Your task to perform on an android device: Go to CNN.com Image 0: 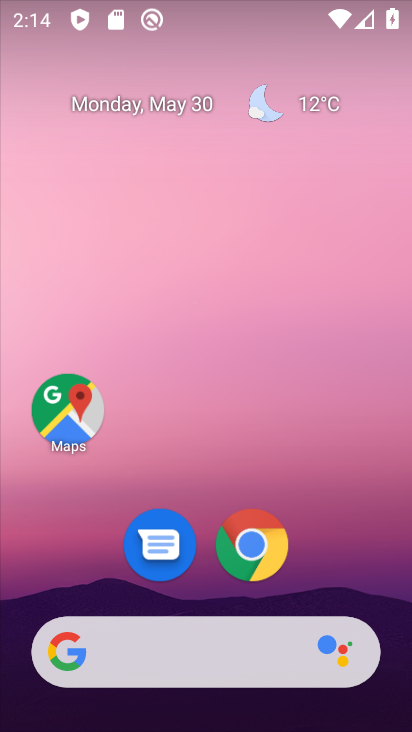
Step 0: click (254, 647)
Your task to perform on an android device: Go to CNN.com Image 1: 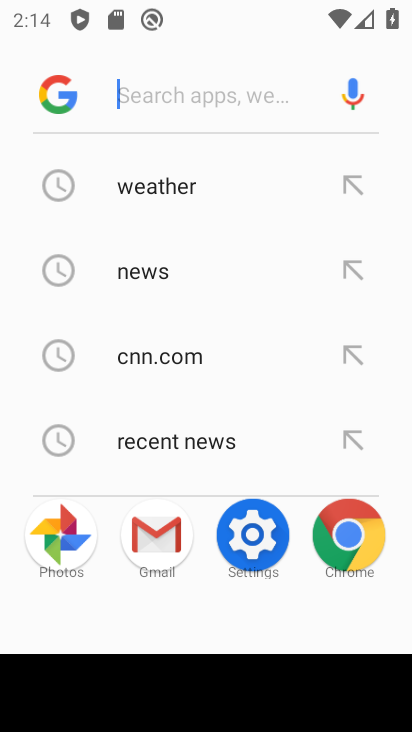
Step 1: click (162, 347)
Your task to perform on an android device: Go to CNN.com Image 2: 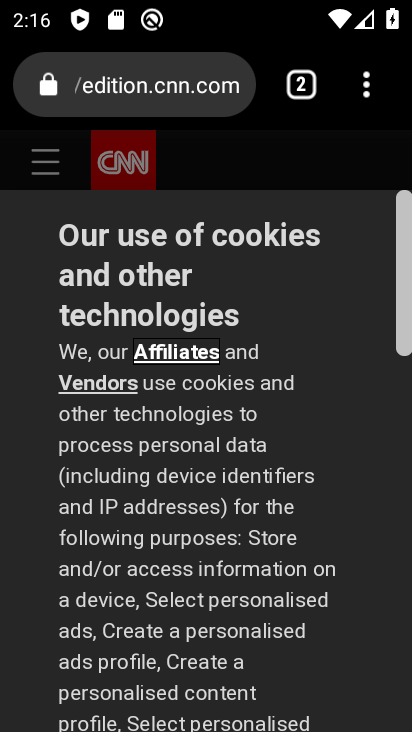
Step 2: task complete